Your task to perform on an android device: Open network settings Image 0: 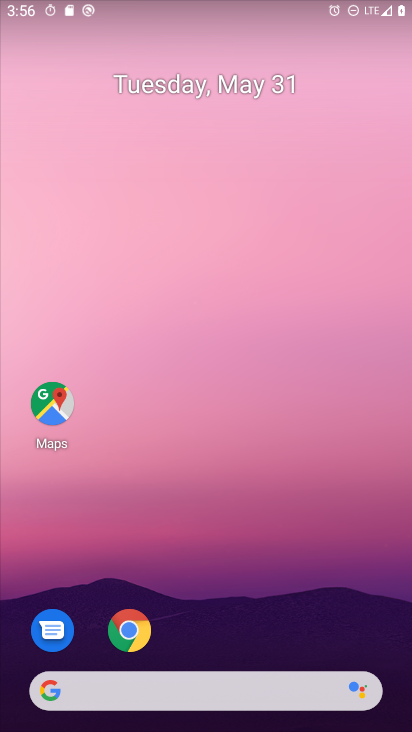
Step 0: drag from (271, 681) to (300, 5)
Your task to perform on an android device: Open network settings Image 1: 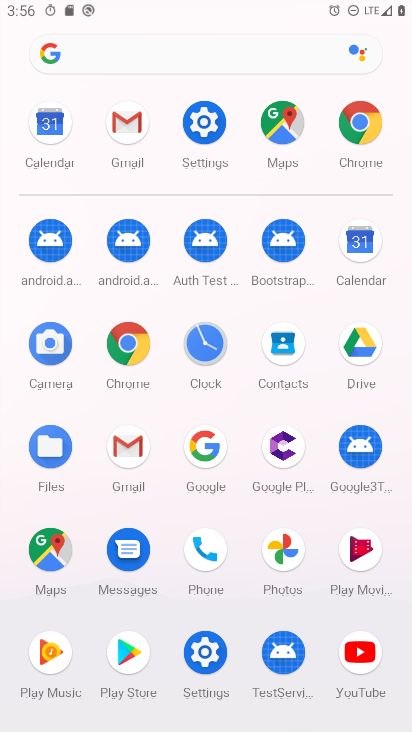
Step 1: click (206, 124)
Your task to perform on an android device: Open network settings Image 2: 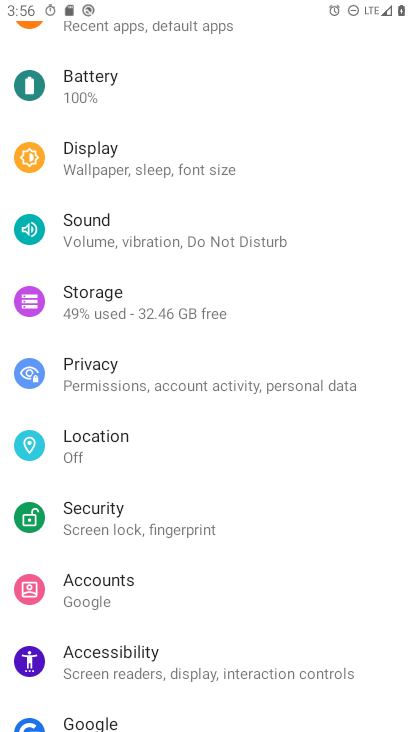
Step 2: drag from (168, 131) to (147, 707)
Your task to perform on an android device: Open network settings Image 3: 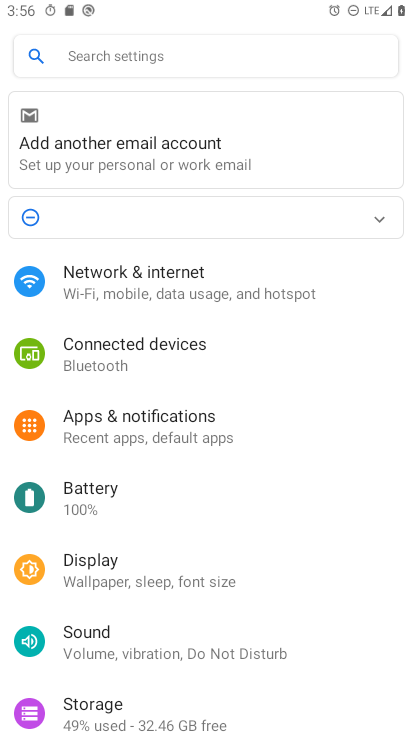
Step 3: click (129, 299)
Your task to perform on an android device: Open network settings Image 4: 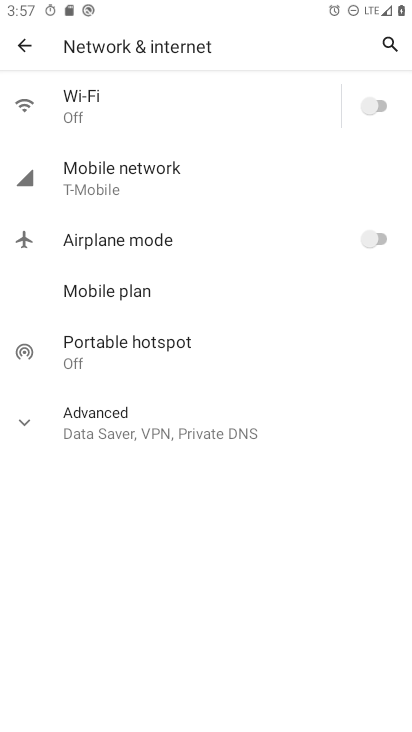
Step 4: task complete